Your task to perform on an android device: Open ESPN.com Image 0: 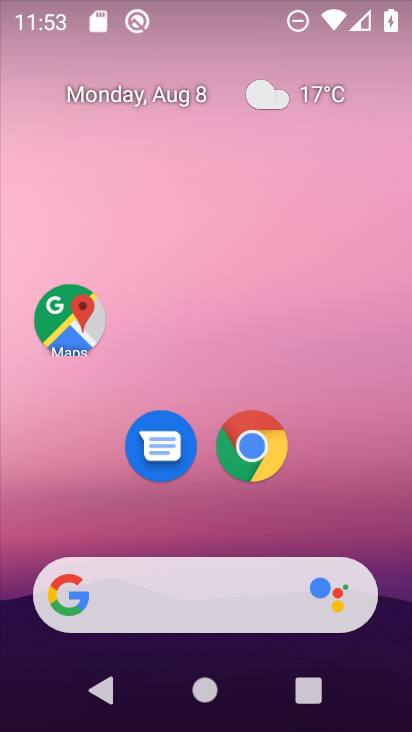
Step 0: click (247, 445)
Your task to perform on an android device: Open ESPN.com Image 1: 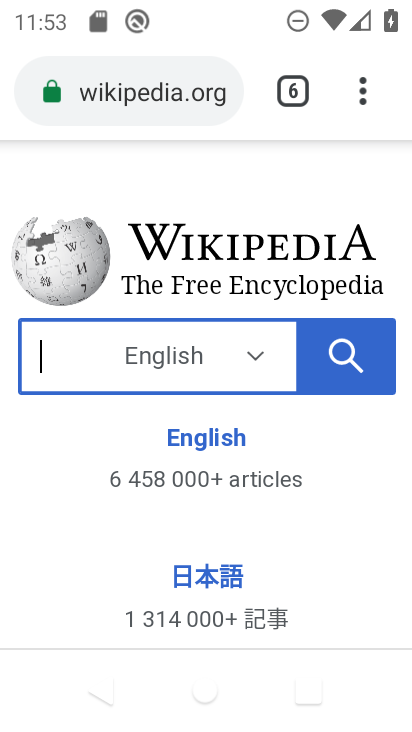
Step 1: click (207, 70)
Your task to perform on an android device: Open ESPN.com Image 2: 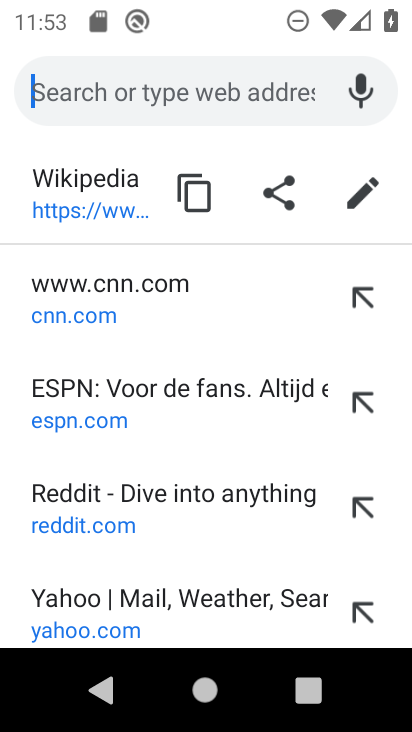
Step 2: type "espn.com"
Your task to perform on an android device: Open ESPN.com Image 3: 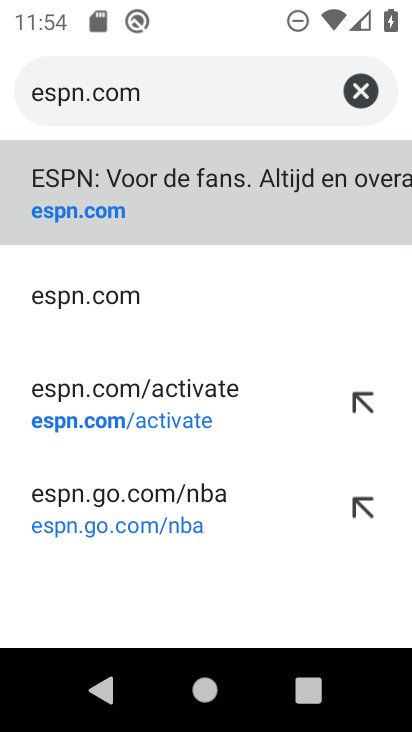
Step 3: click (144, 210)
Your task to perform on an android device: Open ESPN.com Image 4: 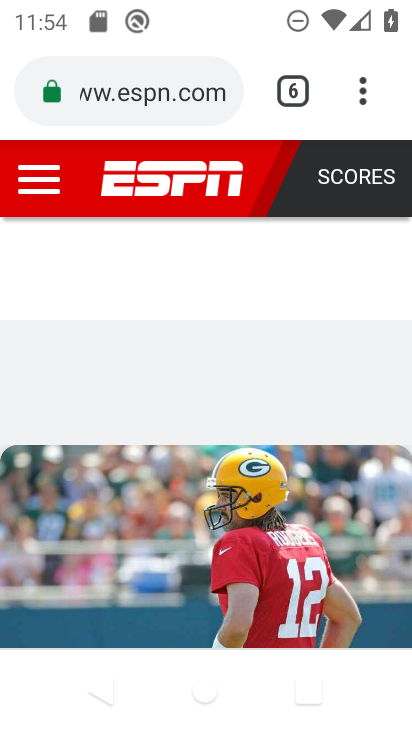
Step 4: task complete